Your task to perform on an android device: Go to Android settings Image 0: 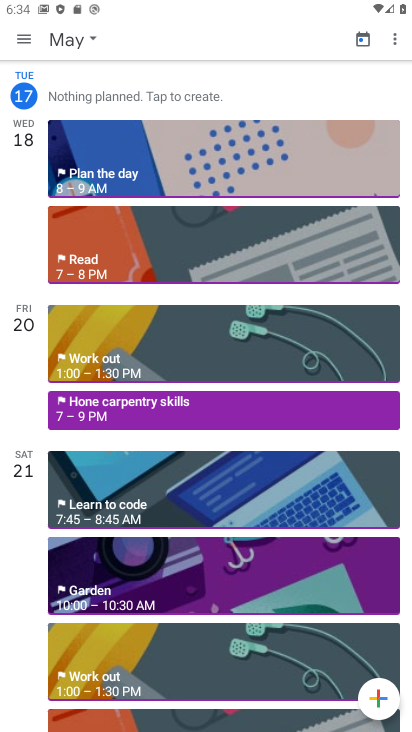
Step 0: press home button
Your task to perform on an android device: Go to Android settings Image 1: 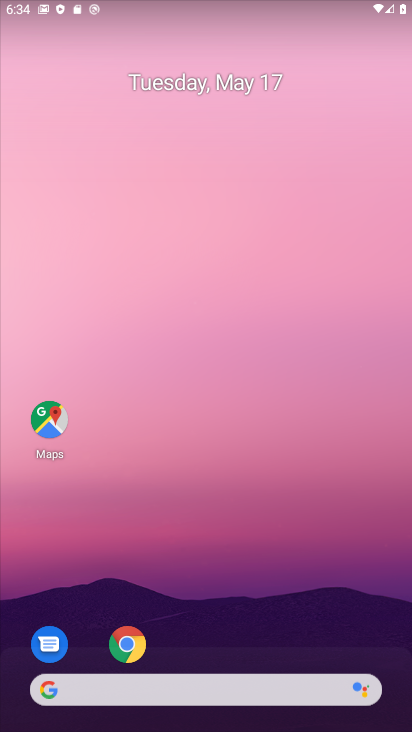
Step 1: drag from (373, 684) to (284, 52)
Your task to perform on an android device: Go to Android settings Image 2: 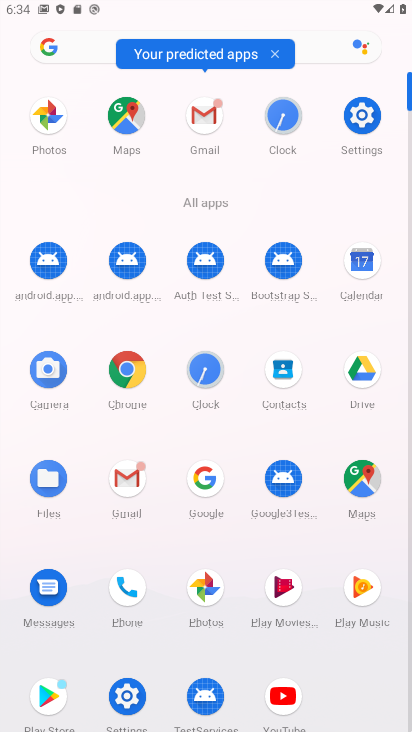
Step 2: click (127, 698)
Your task to perform on an android device: Go to Android settings Image 3: 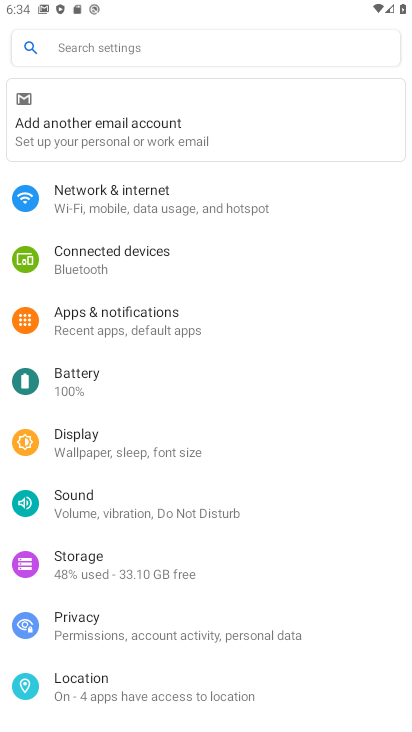
Step 3: drag from (110, 659) to (193, 130)
Your task to perform on an android device: Go to Android settings Image 4: 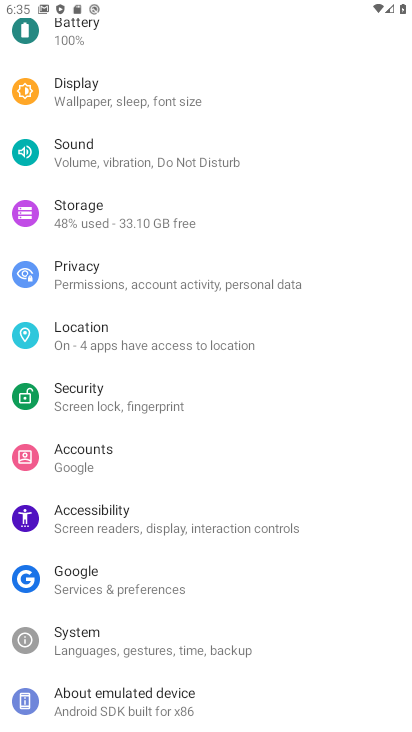
Step 4: click (154, 695)
Your task to perform on an android device: Go to Android settings Image 5: 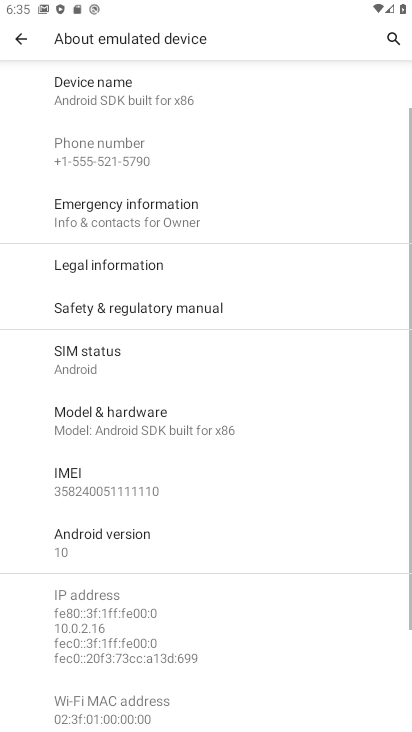
Step 5: click (159, 546)
Your task to perform on an android device: Go to Android settings Image 6: 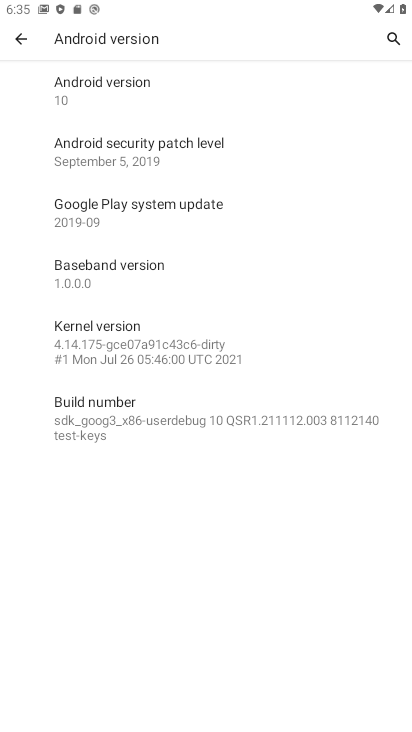
Step 6: task complete